Your task to perform on an android device: turn pop-ups off in chrome Image 0: 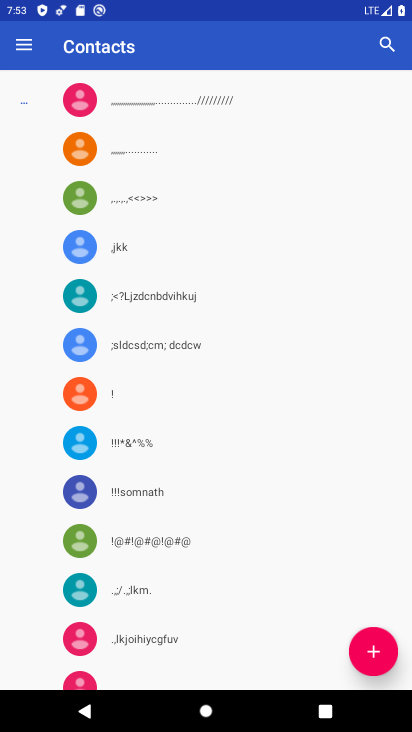
Step 0: press home button
Your task to perform on an android device: turn pop-ups off in chrome Image 1: 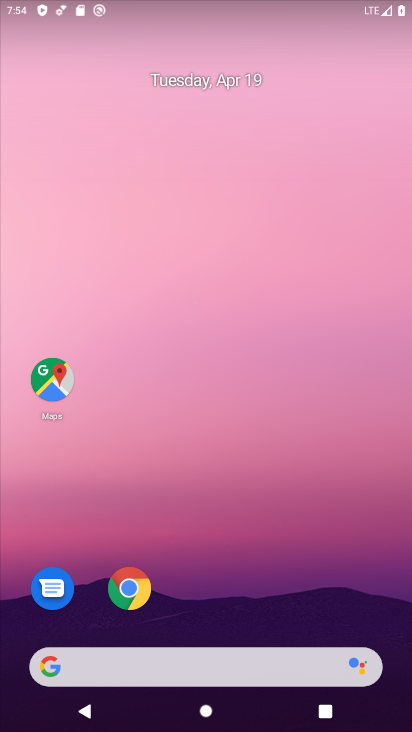
Step 1: click (122, 589)
Your task to perform on an android device: turn pop-ups off in chrome Image 2: 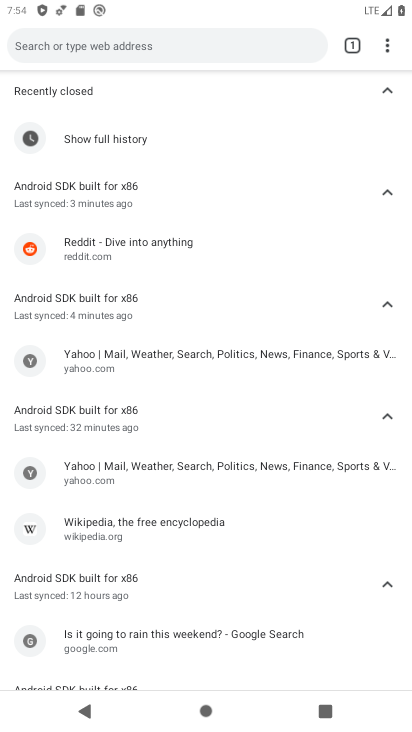
Step 2: click (387, 40)
Your task to perform on an android device: turn pop-ups off in chrome Image 3: 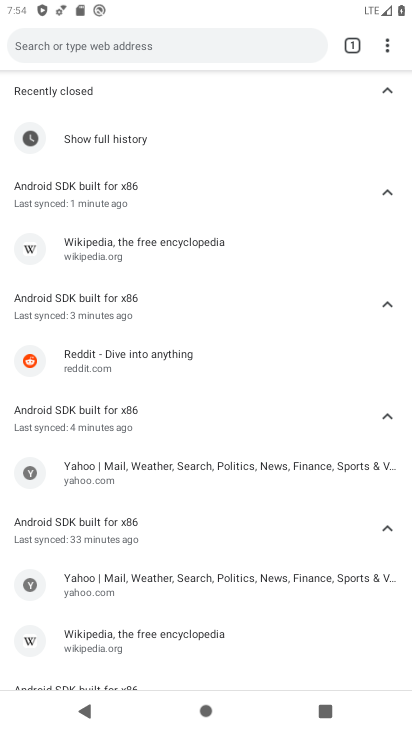
Step 3: click (385, 39)
Your task to perform on an android device: turn pop-ups off in chrome Image 4: 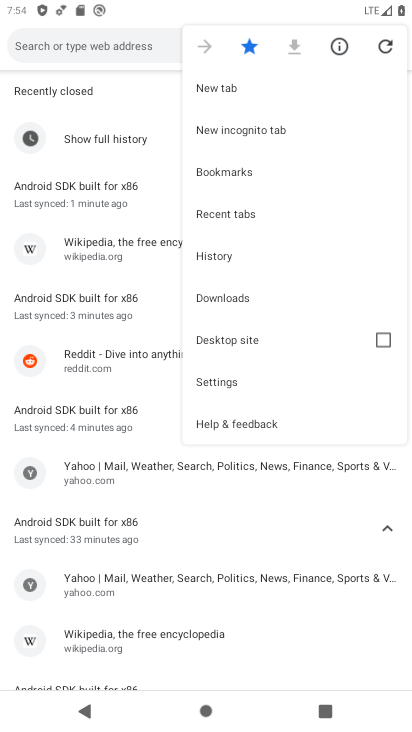
Step 4: click (245, 383)
Your task to perform on an android device: turn pop-ups off in chrome Image 5: 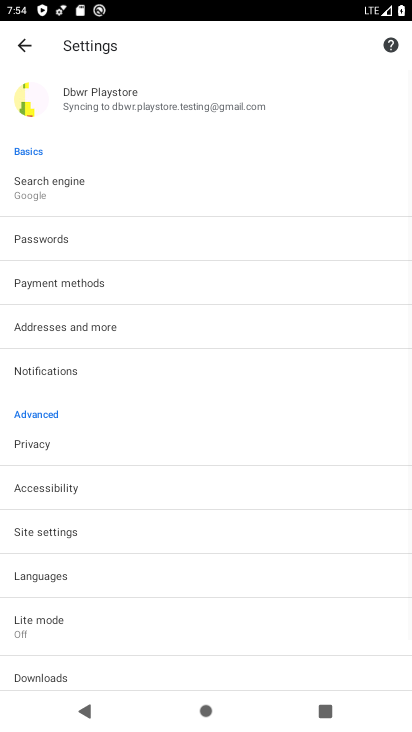
Step 5: drag from (153, 622) to (197, 166)
Your task to perform on an android device: turn pop-ups off in chrome Image 6: 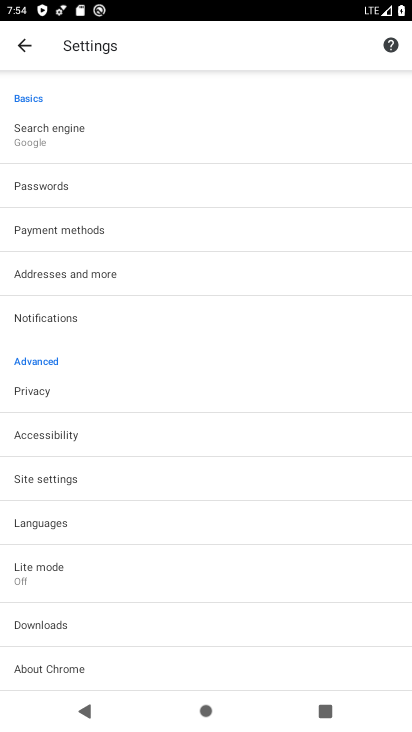
Step 6: click (79, 476)
Your task to perform on an android device: turn pop-ups off in chrome Image 7: 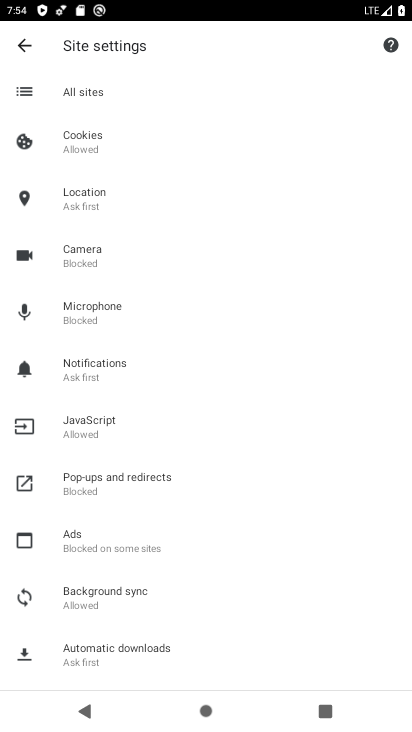
Step 7: click (124, 483)
Your task to perform on an android device: turn pop-ups off in chrome Image 8: 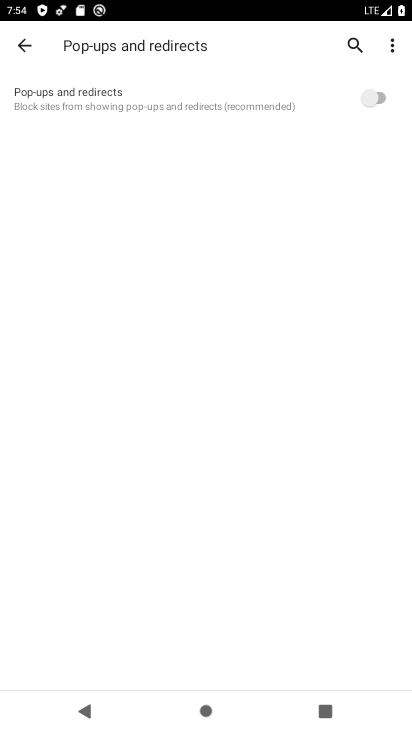
Step 8: task complete